Your task to perform on an android device: Check the weather Image 0: 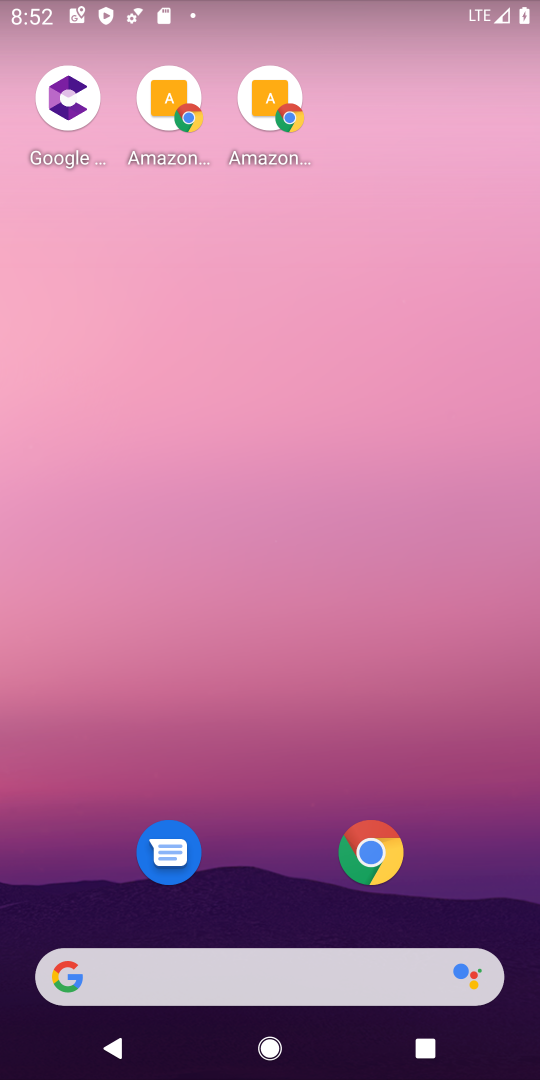
Step 0: drag from (224, 982) to (282, 361)
Your task to perform on an android device: Check the weather Image 1: 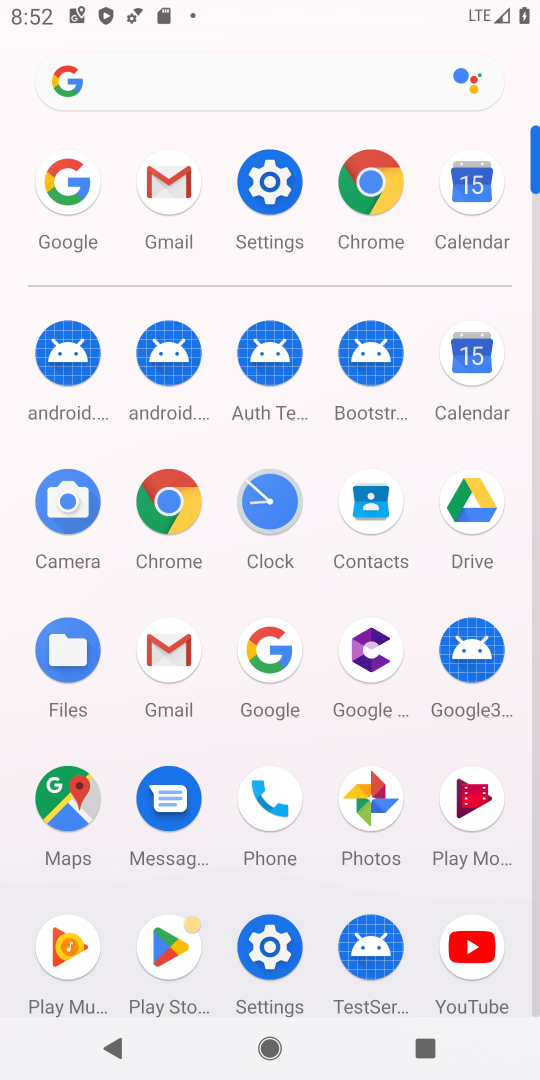
Step 1: click (265, 649)
Your task to perform on an android device: Check the weather Image 2: 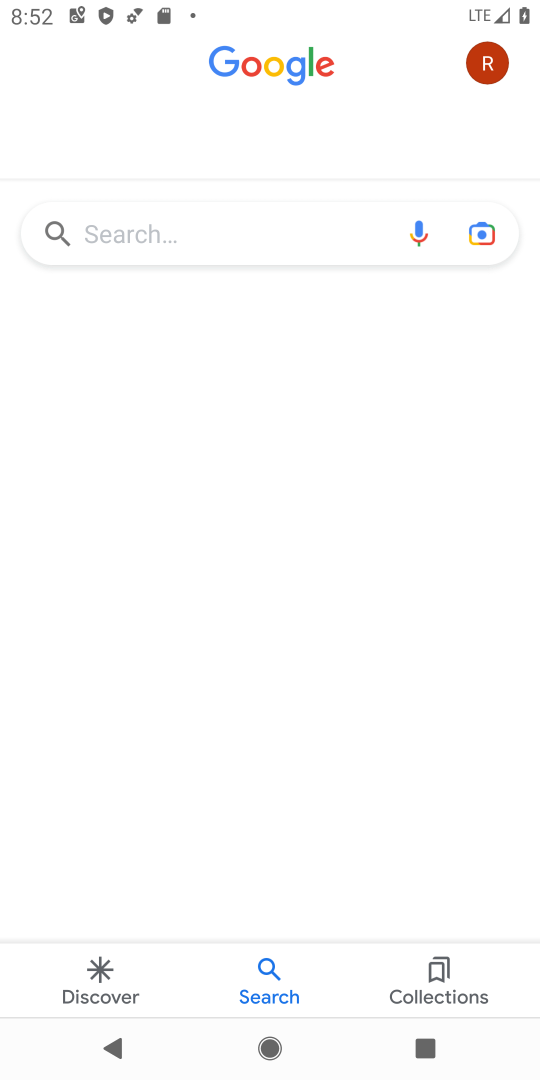
Step 2: click (258, 240)
Your task to perform on an android device: Check the weather Image 3: 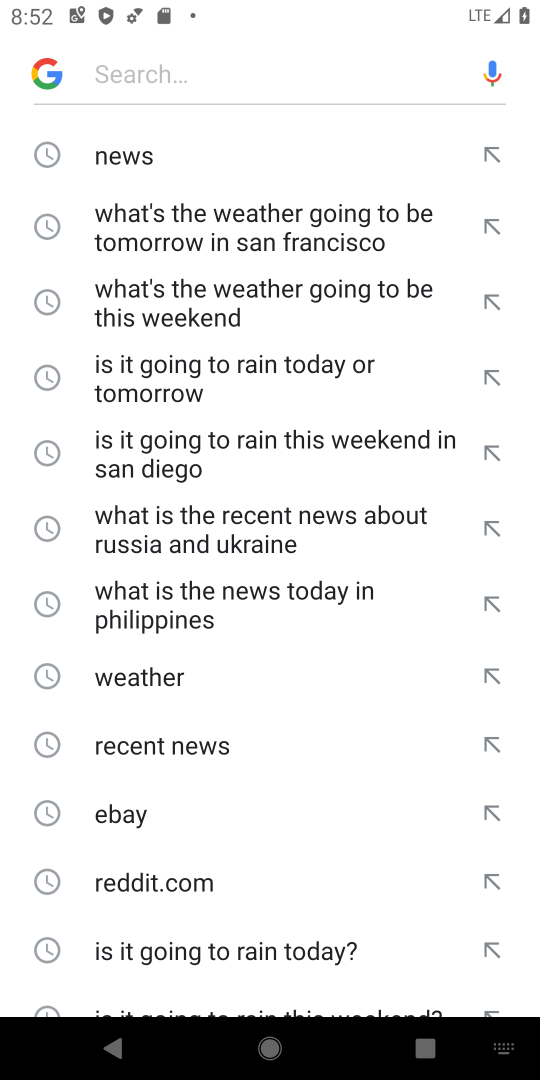
Step 3: type "weather"
Your task to perform on an android device: Check the weather Image 4: 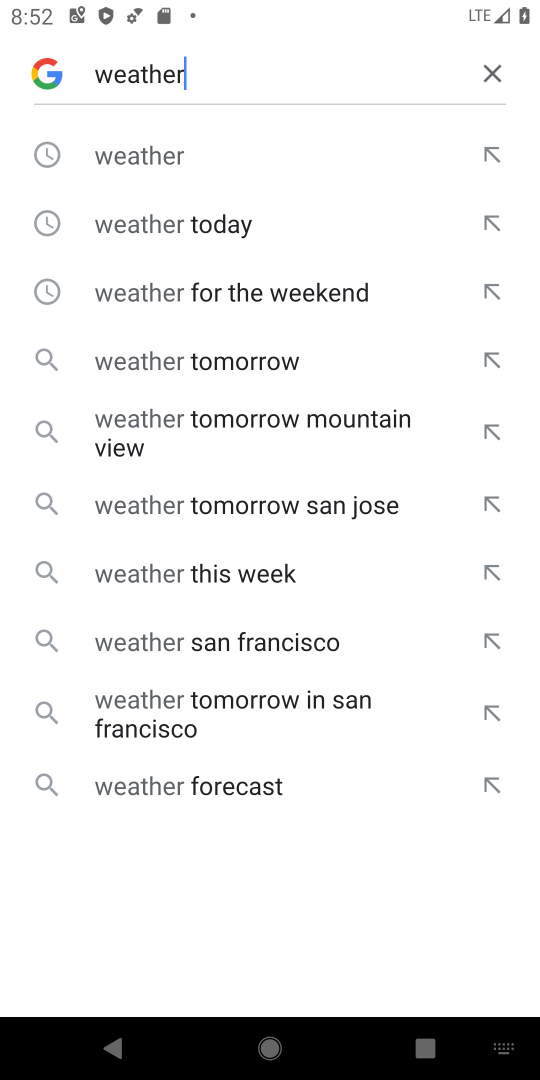
Step 4: click (161, 159)
Your task to perform on an android device: Check the weather Image 5: 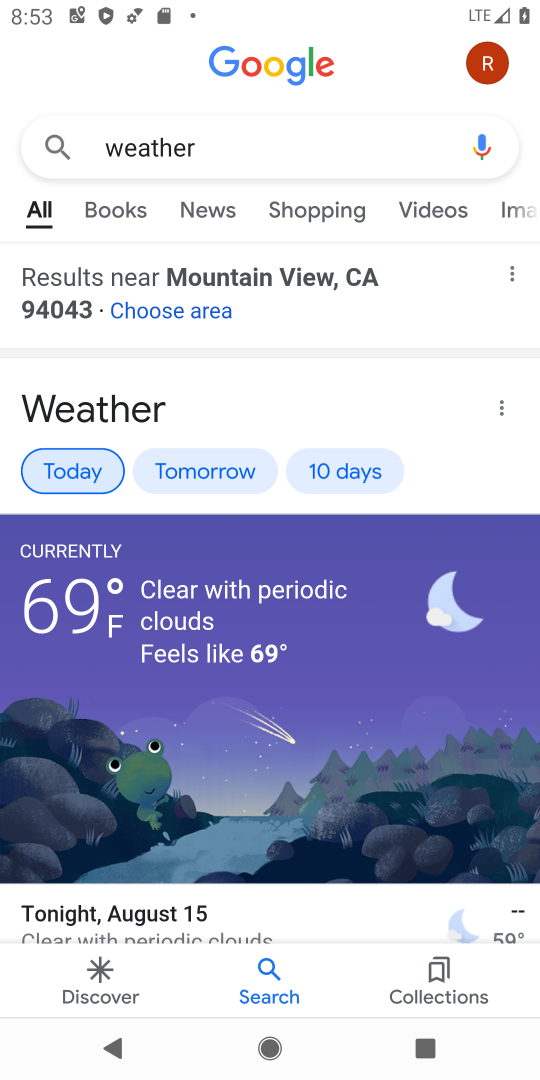
Step 5: task complete